Your task to perform on an android device: Go to sound settings Image 0: 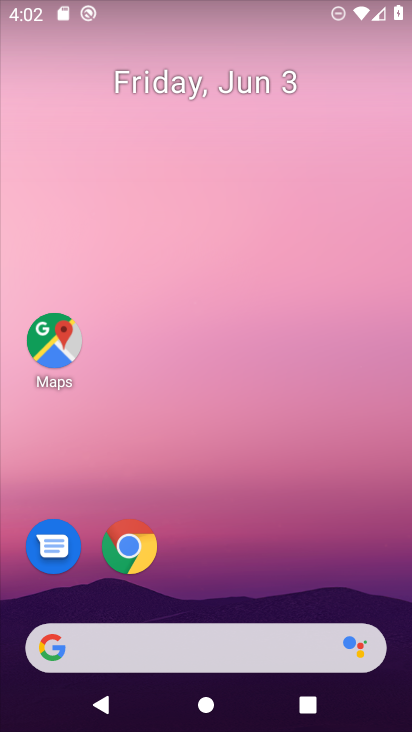
Step 0: drag from (257, 547) to (256, 5)
Your task to perform on an android device: Go to sound settings Image 1: 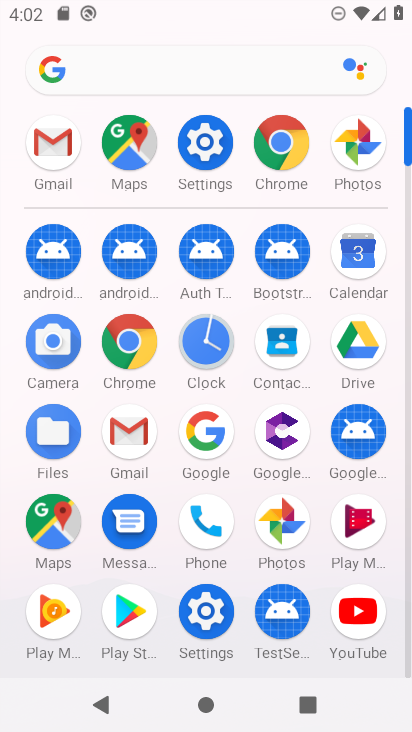
Step 1: click (213, 143)
Your task to perform on an android device: Go to sound settings Image 2: 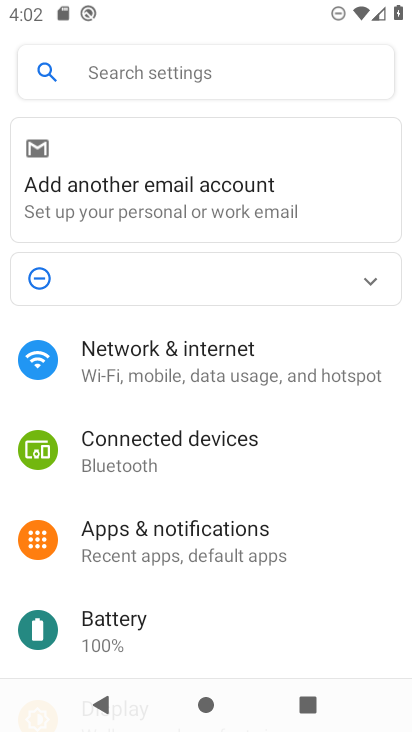
Step 2: drag from (218, 458) to (234, 48)
Your task to perform on an android device: Go to sound settings Image 3: 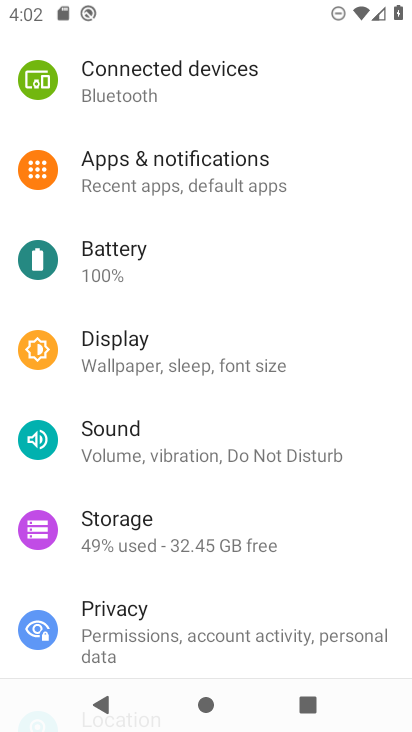
Step 3: click (215, 426)
Your task to perform on an android device: Go to sound settings Image 4: 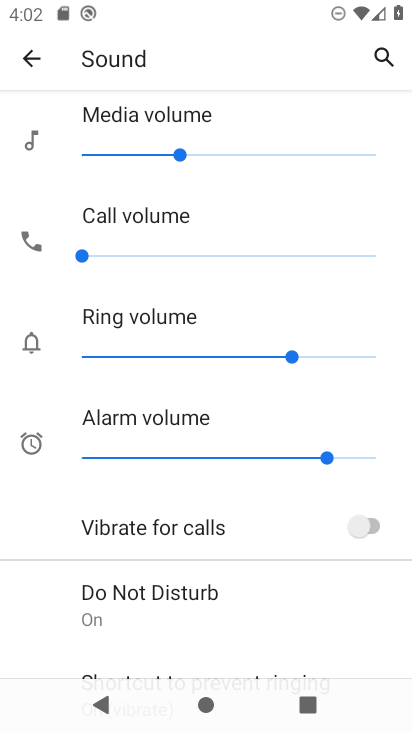
Step 4: task complete